Your task to perform on an android device: turn off improve location accuracy Image 0: 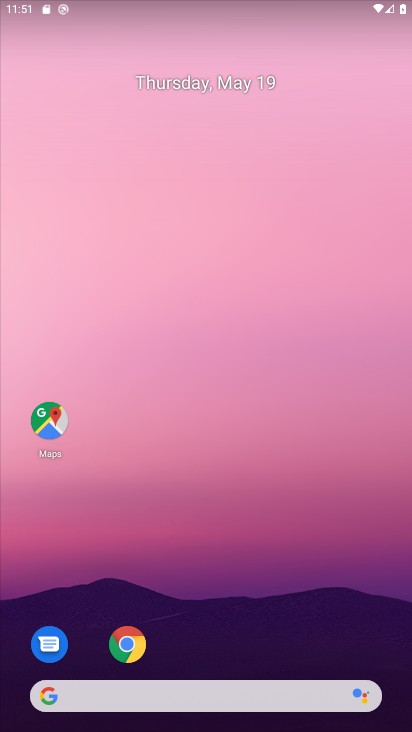
Step 0: drag from (215, 626) to (283, 88)
Your task to perform on an android device: turn off improve location accuracy Image 1: 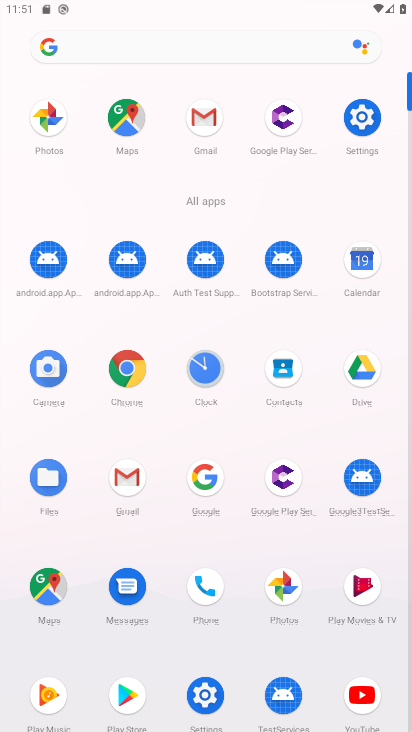
Step 1: click (364, 107)
Your task to perform on an android device: turn off improve location accuracy Image 2: 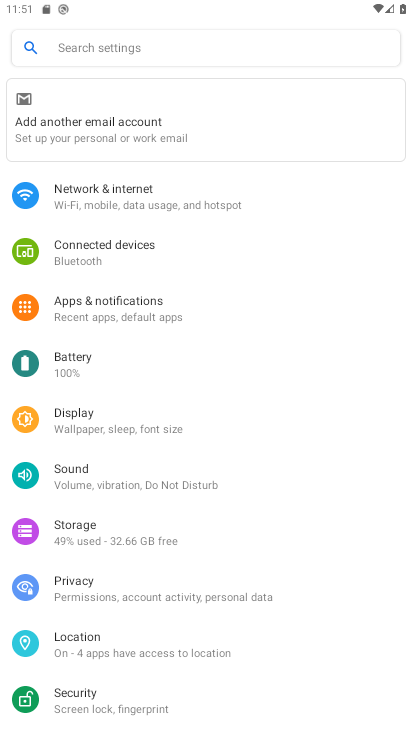
Step 2: click (101, 650)
Your task to perform on an android device: turn off improve location accuracy Image 3: 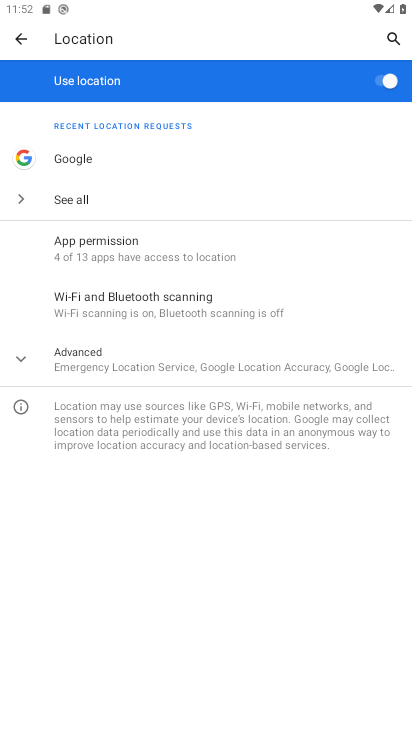
Step 3: click (131, 366)
Your task to perform on an android device: turn off improve location accuracy Image 4: 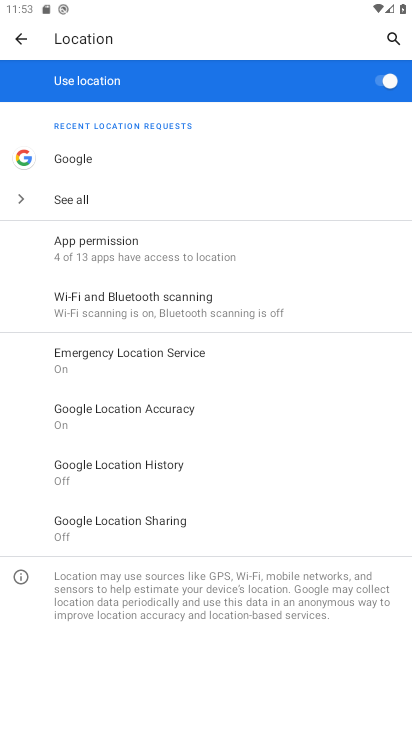
Step 4: click (174, 405)
Your task to perform on an android device: turn off improve location accuracy Image 5: 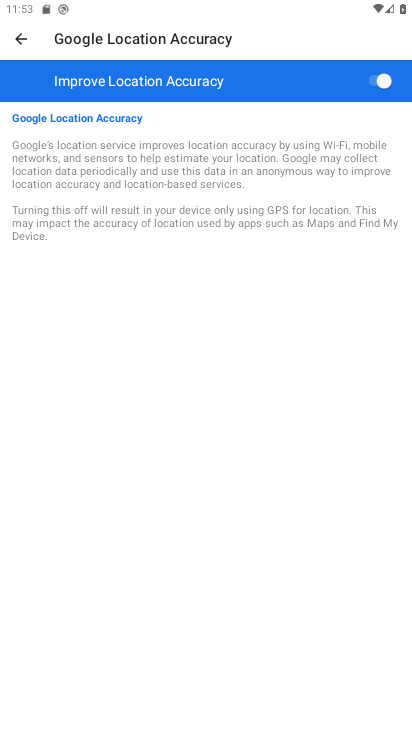
Step 5: click (381, 79)
Your task to perform on an android device: turn off improve location accuracy Image 6: 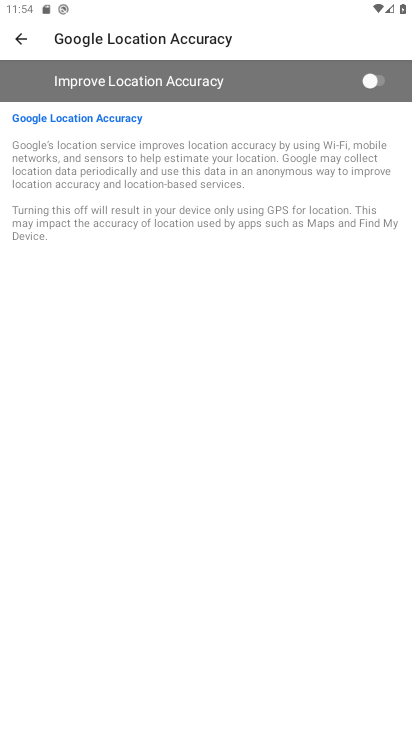
Step 6: task complete